Your task to perform on an android device: turn on translation in the chrome app Image 0: 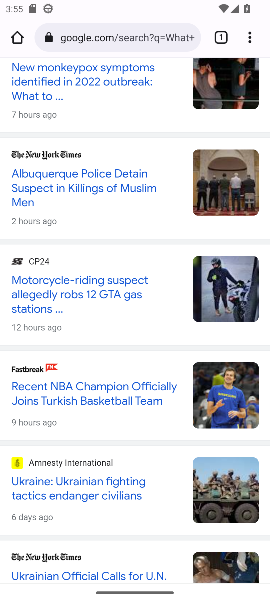
Step 0: press home button
Your task to perform on an android device: turn on translation in the chrome app Image 1: 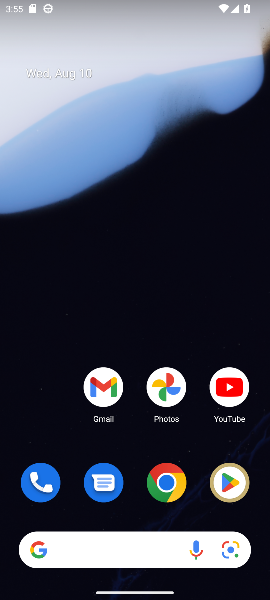
Step 1: click (165, 491)
Your task to perform on an android device: turn on translation in the chrome app Image 2: 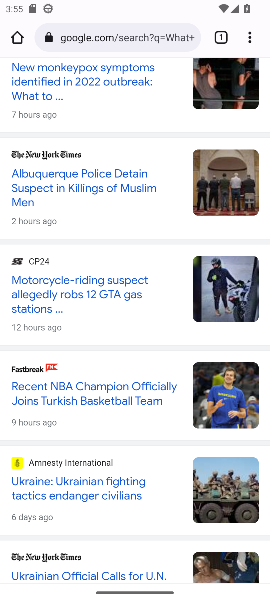
Step 2: drag from (247, 37) to (147, 473)
Your task to perform on an android device: turn on translation in the chrome app Image 3: 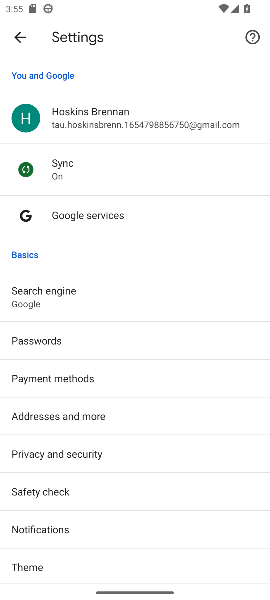
Step 3: drag from (107, 480) to (119, 218)
Your task to perform on an android device: turn on translation in the chrome app Image 4: 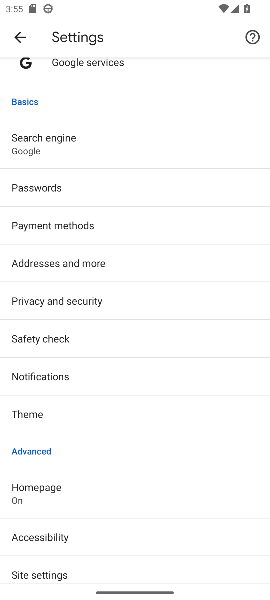
Step 4: drag from (151, 507) to (136, 289)
Your task to perform on an android device: turn on translation in the chrome app Image 5: 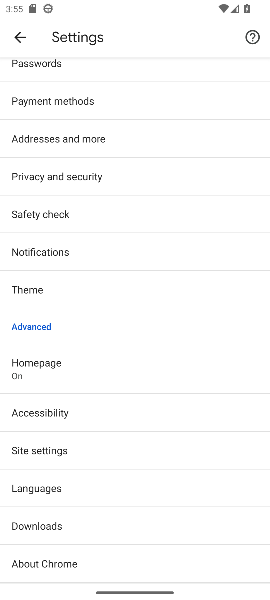
Step 5: click (46, 492)
Your task to perform on an android device: turn on translation in the chrome app Image 6: 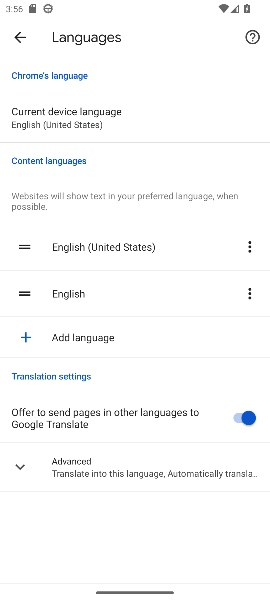
Step 6: task complete